Your task to perform on an android device: open chrome and create a bookmark for the current page Image 0: 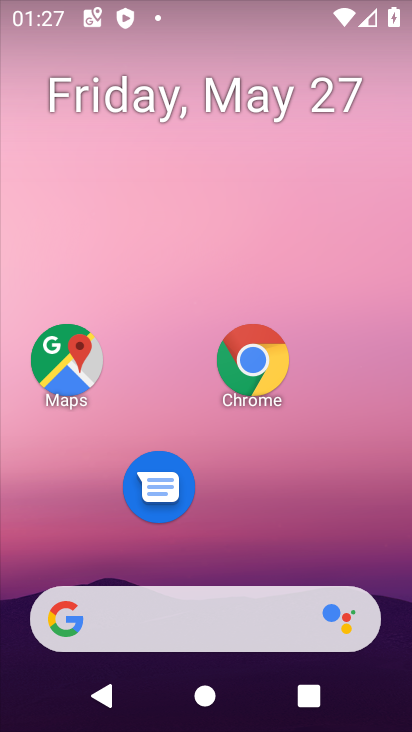
Step 0: click (251, 357)
Your task to perform on an android device: open chrome and create a bookmark for the current page Image 1: 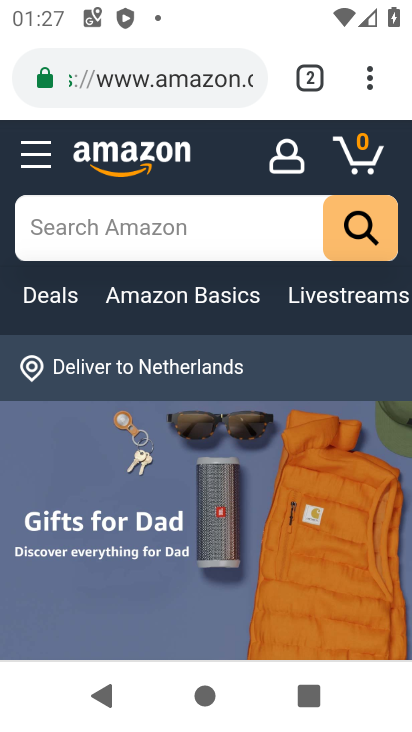
Step 1: click (364, 79)
Your task to perform on an android device: open chrome and create a bookmark for the current page Image 2: 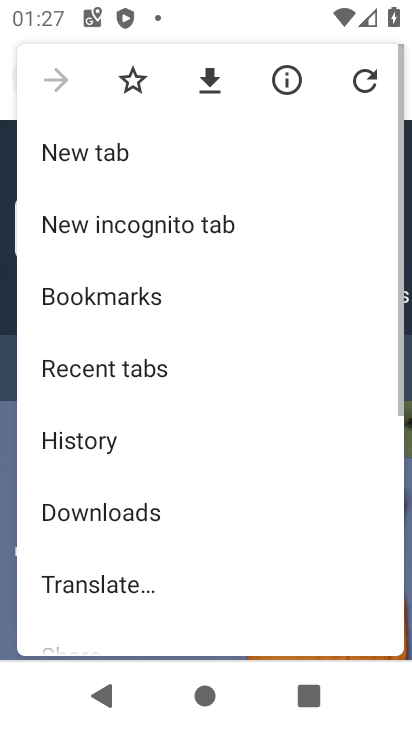
Step 2: click (138, 82)
Your task to perform on an android device: open chrome and create a bookmark for the current page Image 3: 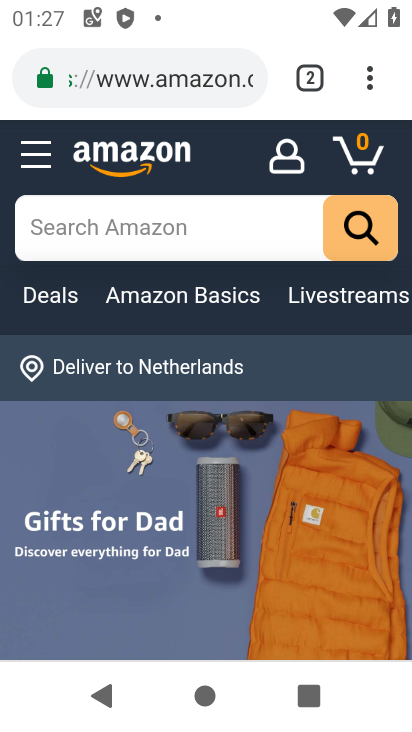
Step 3: task complete